Your task to perform on an android device: search for starred emails in the gmail app Image 0: 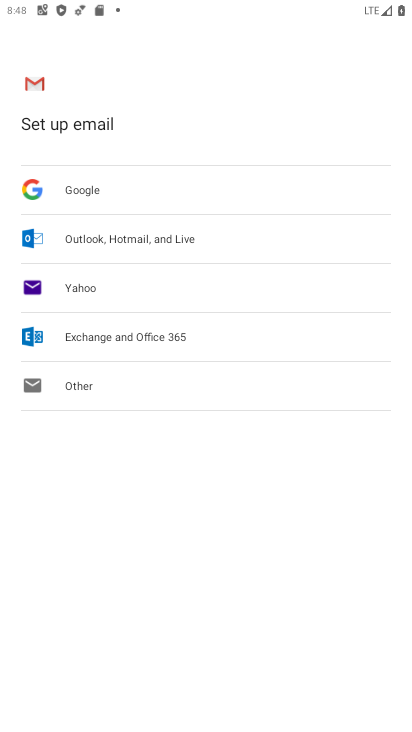
Step 0: press home button
Your task to perform on an android device: search for starred emails in the gmail app Image 1: 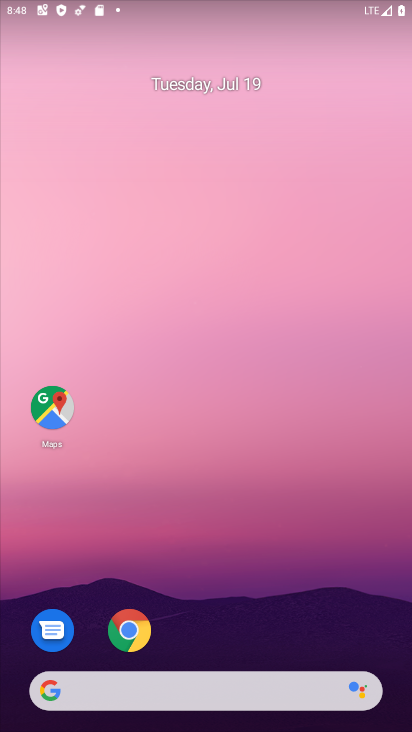
Step 1: drag from (246, 621) to (245, 137)
Your task to perform on an android device: search for starred emails in the gmail app Image 2: 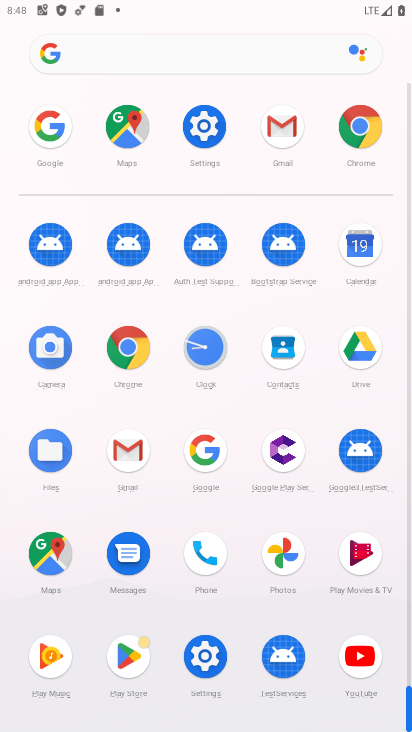
Step 2: click (132, 467)
Your task to perform on an android device: search for starred emails in the gmail app Image 3: 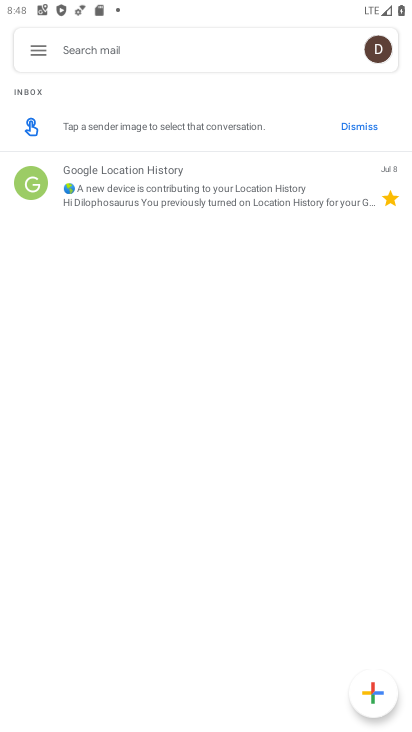
Step 3: click (38, 54)
Your task to perform on an android device: search for starred emails in the gmail app Image 4: 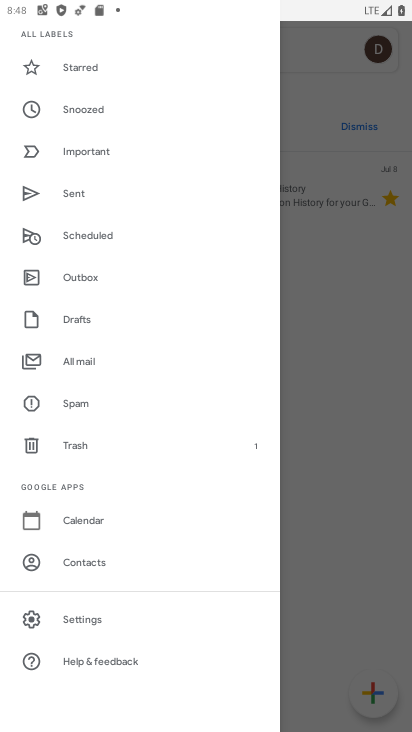
Step 4: click (100, 78)
Your task to perform on an android device: search for starred emails in the gmail app Image 5: 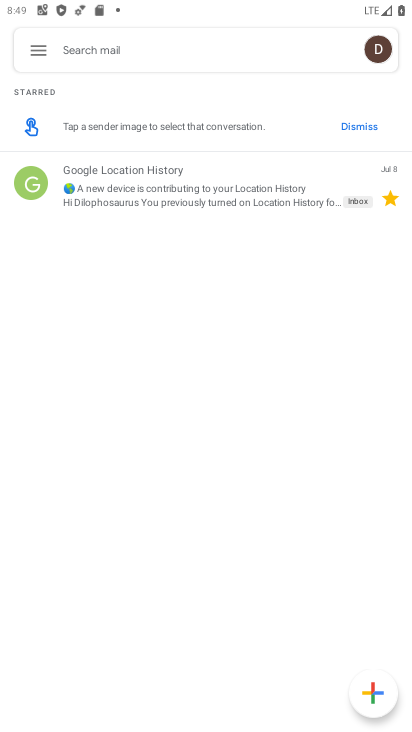
Step 5: task complete